Your task to perform on an android device: What's the news this weekend? Image 0: 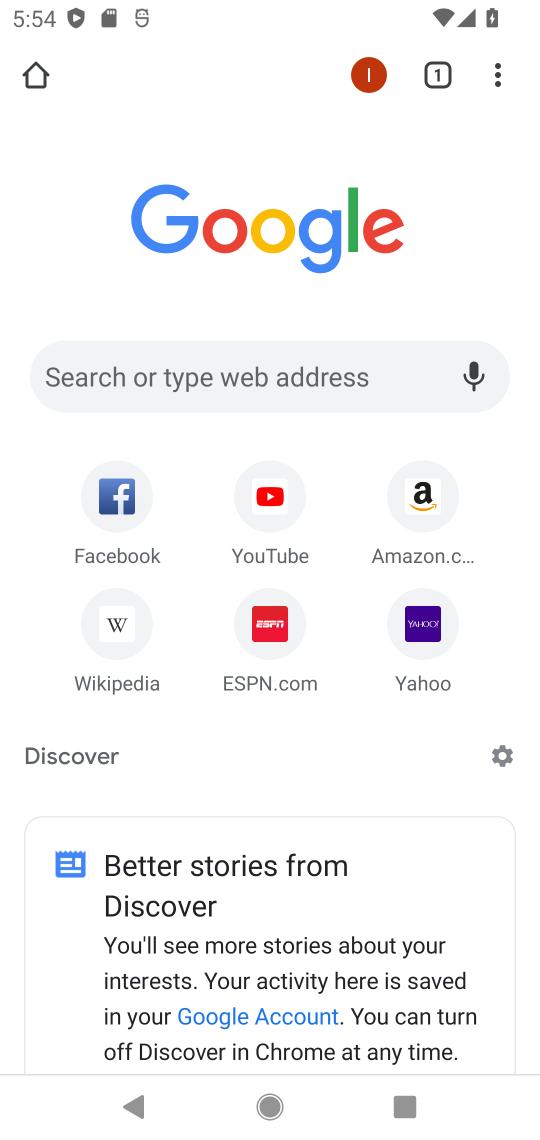
Step 0: click (331, 385)
Your task to perform on an android device: What's the news this weekend? Image 1: 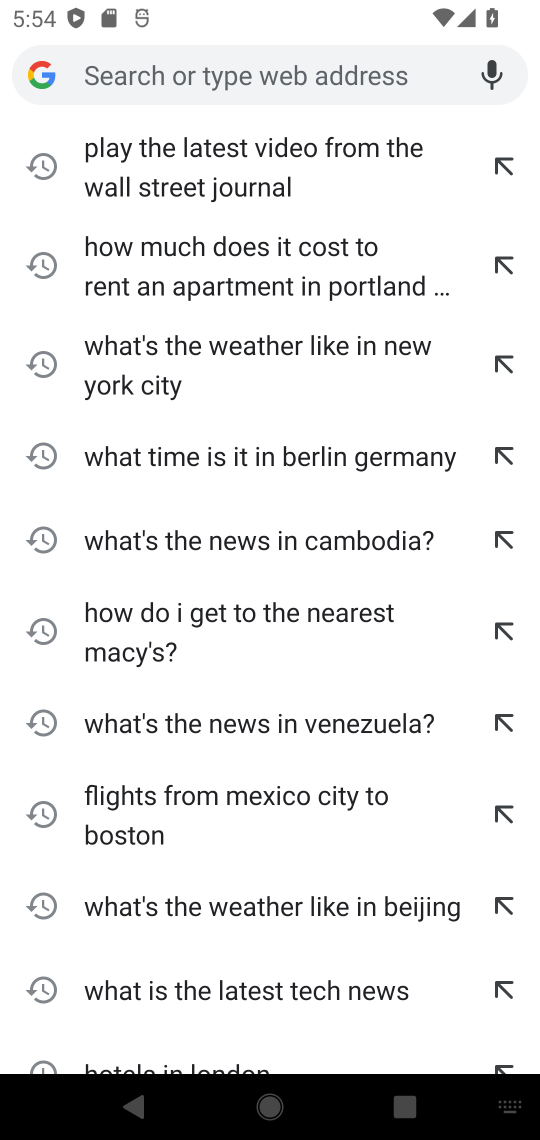
Step 1: type "What's the news this weekend?"
Your task to perform on an android device: What's the news this weekend? Image 2: 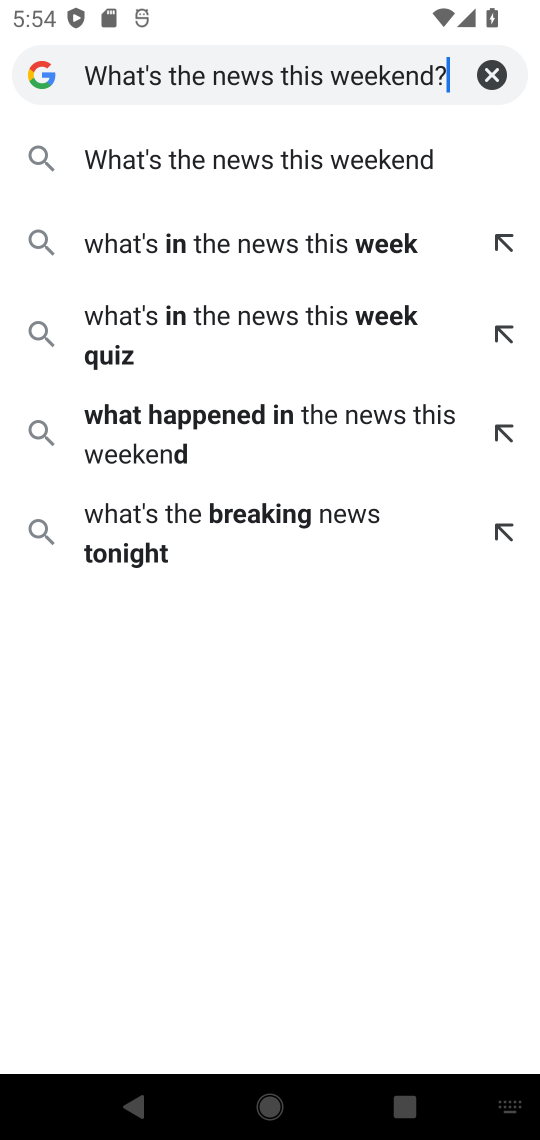
Step 2: type ""
Your task to perform on an android device: What's the news this weekend? Image 3: 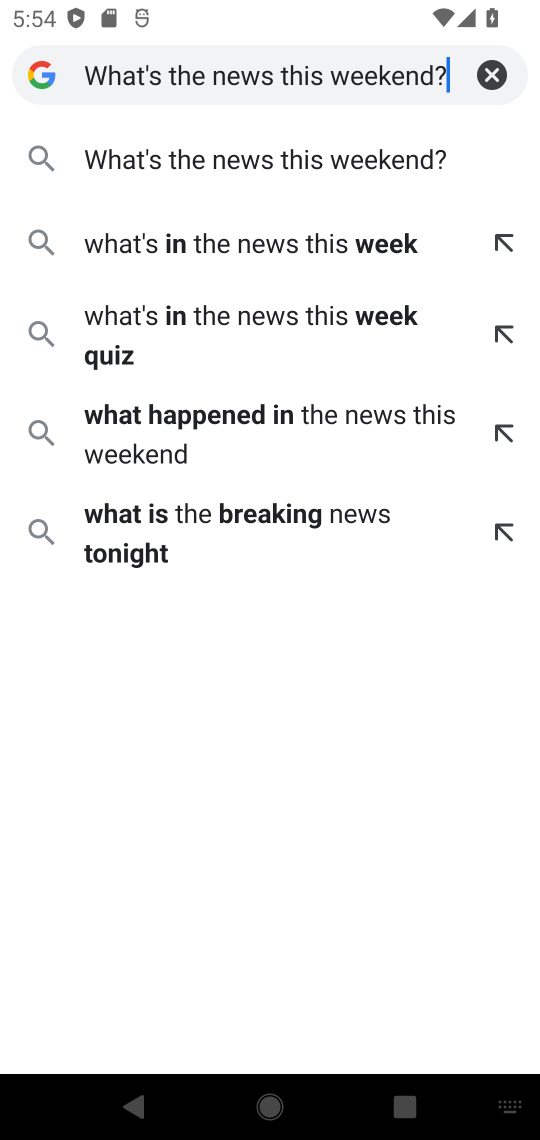
Step 3: click (292, 167)
Your task to perform on an android device: What's the news this weekend? Image 4: 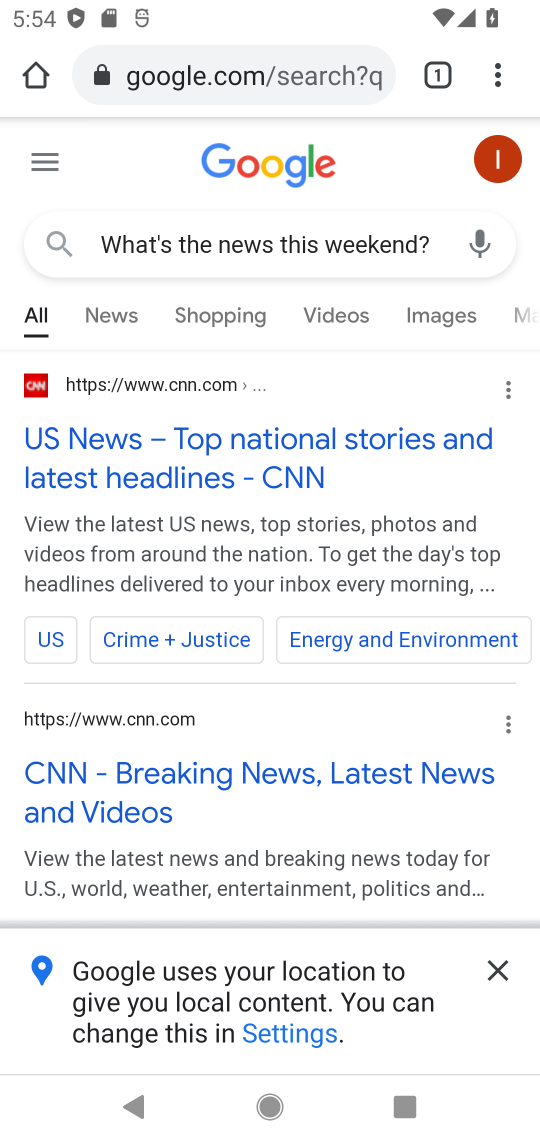
Step 4: click (175, 428)
Your task to perform on an android device: What's the news this weekend? Image 5: 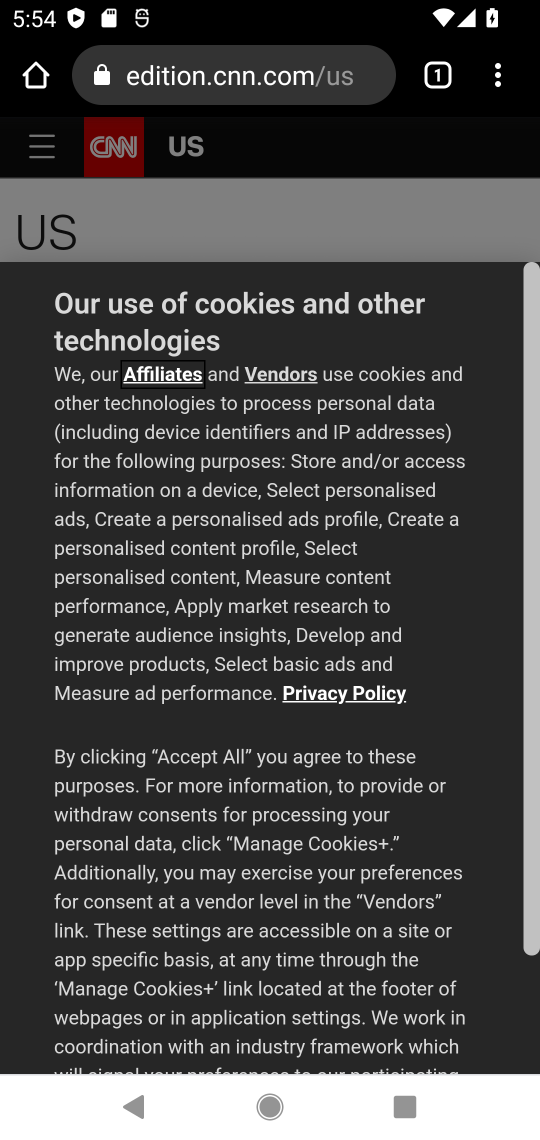
Step 5: drag from (278, 869) to (353, 286)
Your task to perform on an android device: What's the news this weekend? Image 6: 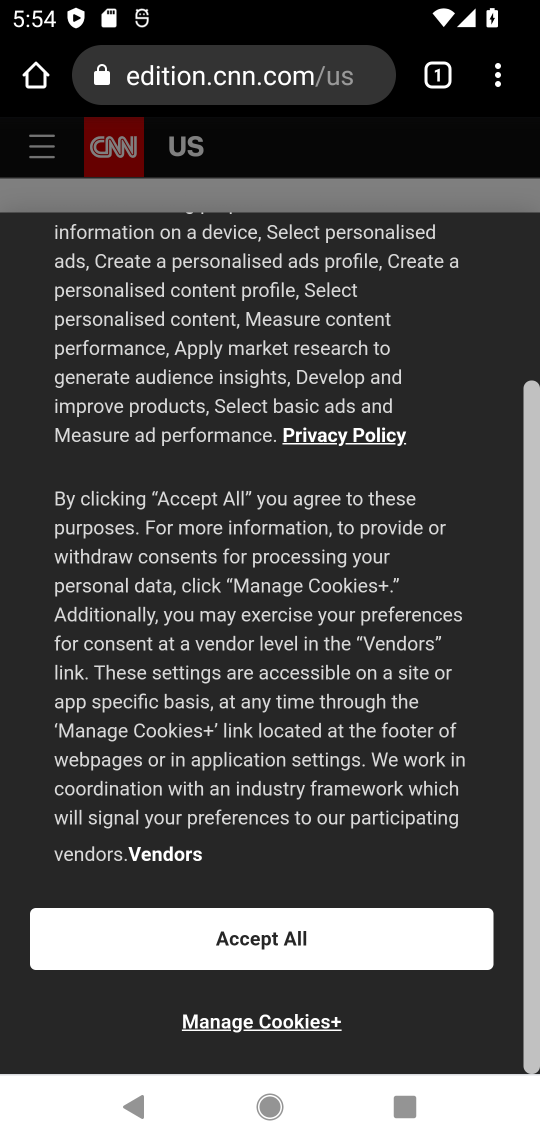
Step 6: drag from (398, 847) to (396, 314)
Your task to perform on an android device: What's the news this weekend? Image 7: 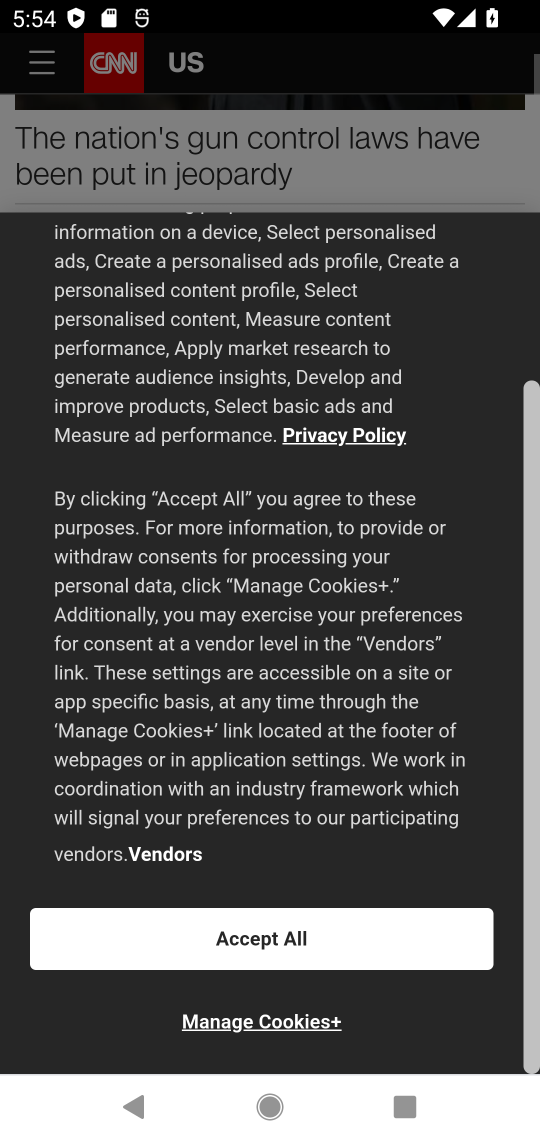
Step 7: click (343, 915)
Your task to perform on an android device: What's the news this weekend? Image 8: 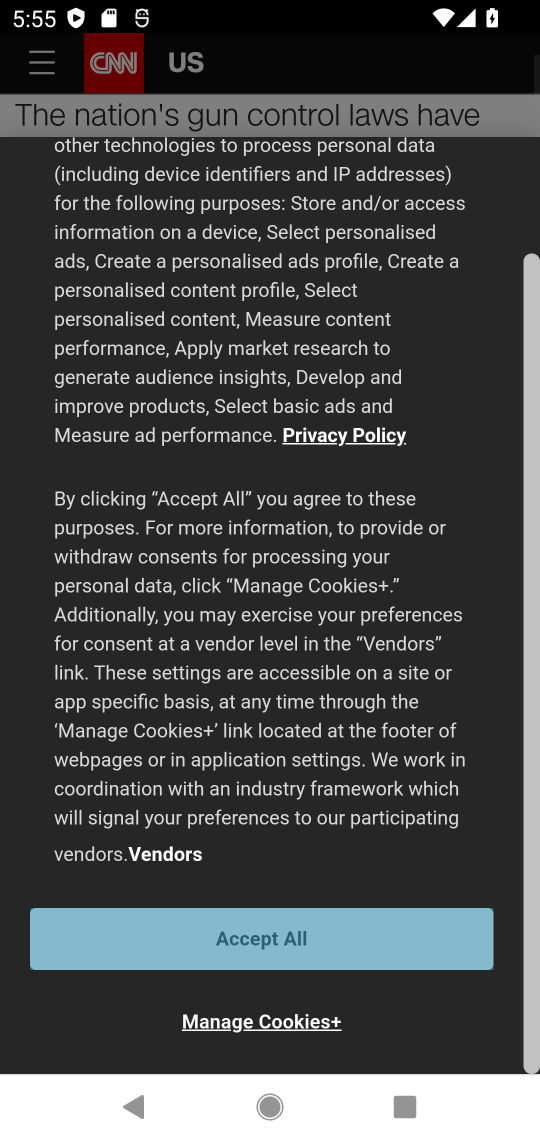
Step 8: drag from (356, 911) to (377, 533)
Your task to perform on an android device: What's the news this weekend? Image 9: 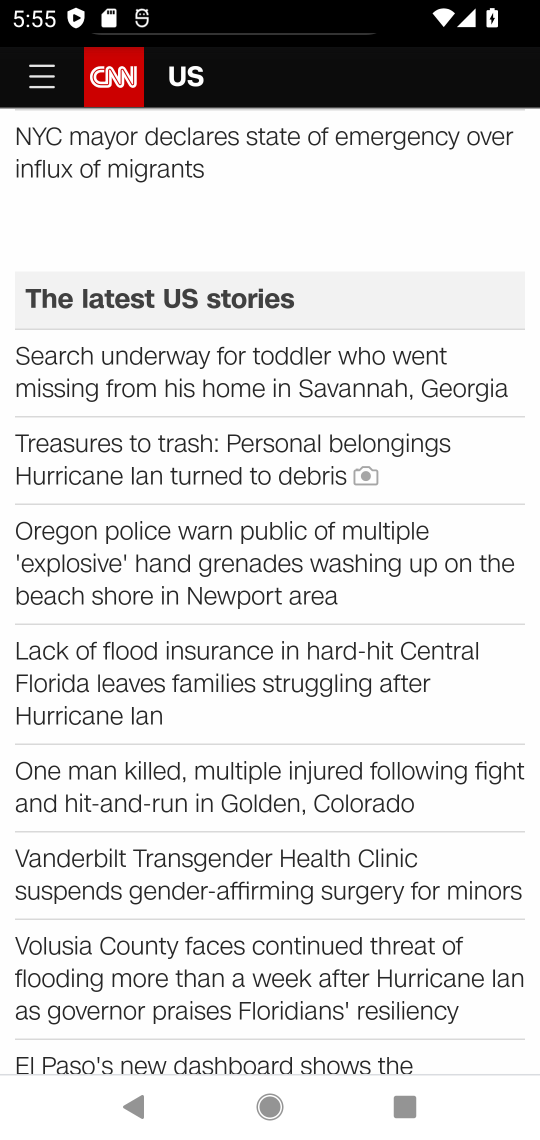
Step 9: drag from (293, 930) to (340, 186)
Your task to perform on an android device: What's the news this weekend? Image 10: 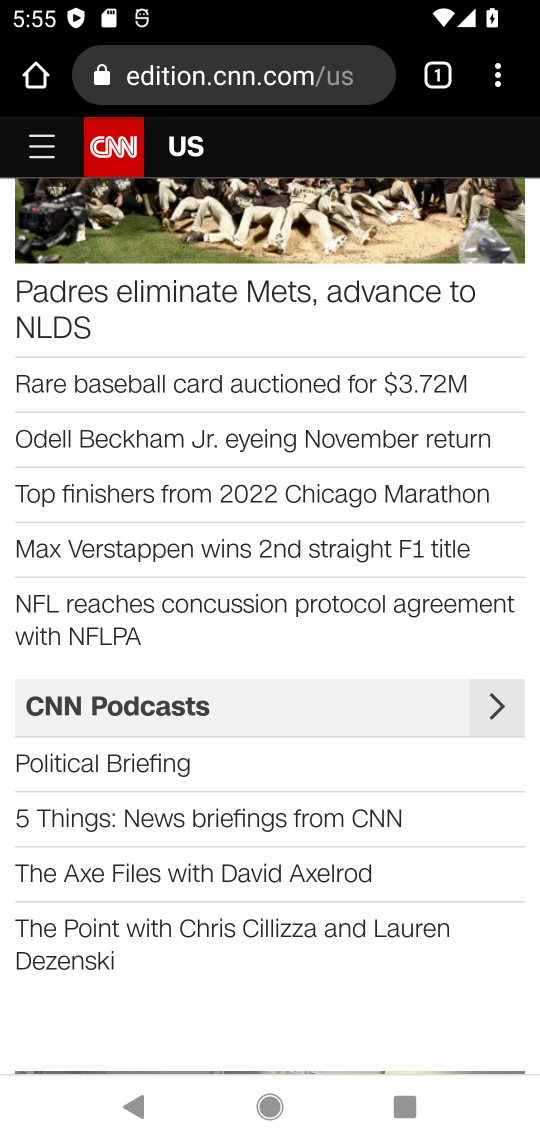
Step 10: drag from (360, 750) to (383, 377)
Your task to perform on an android device: What's the news this weekend? Image 11: 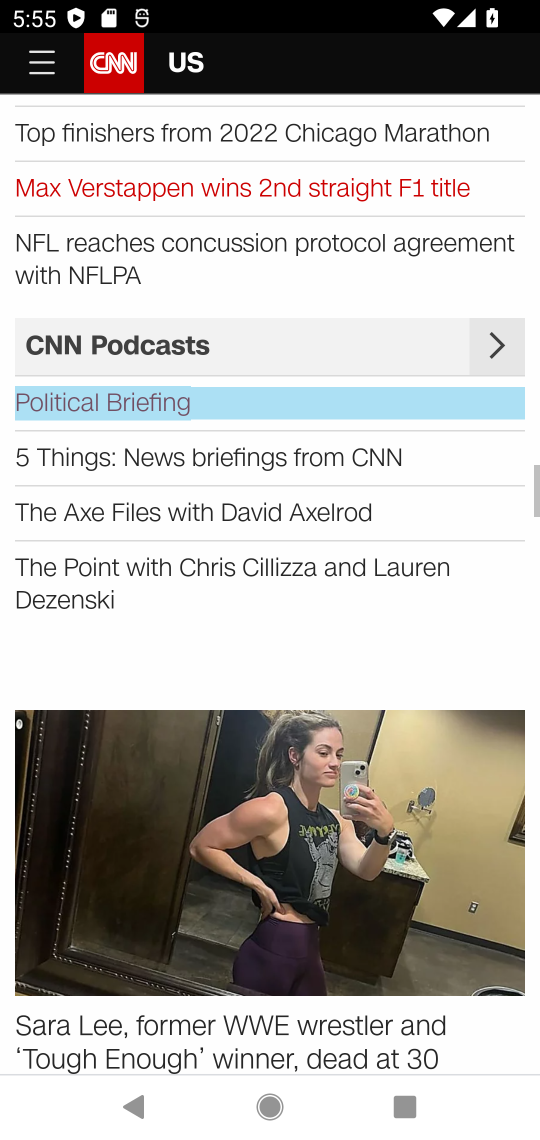
Step 11: drag from (384, 787) to (382, 389)
Your task to perform on an android device: What's the news this weekend? Image 12: 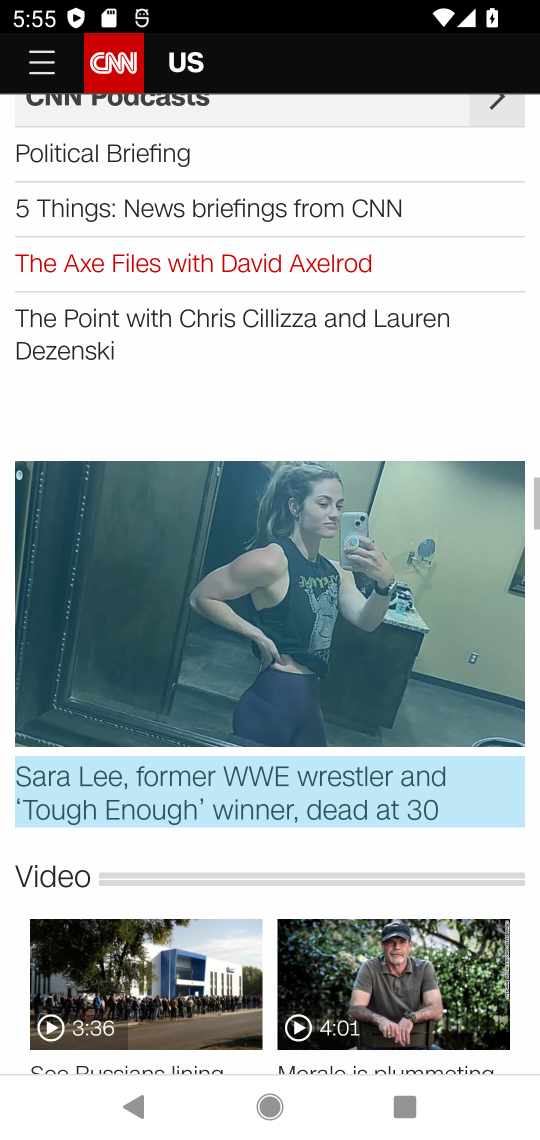
Step 12: drag from (359, 820) to (360, 476)
Your task to perform on an android device: What's the news this weekend? Image 13: 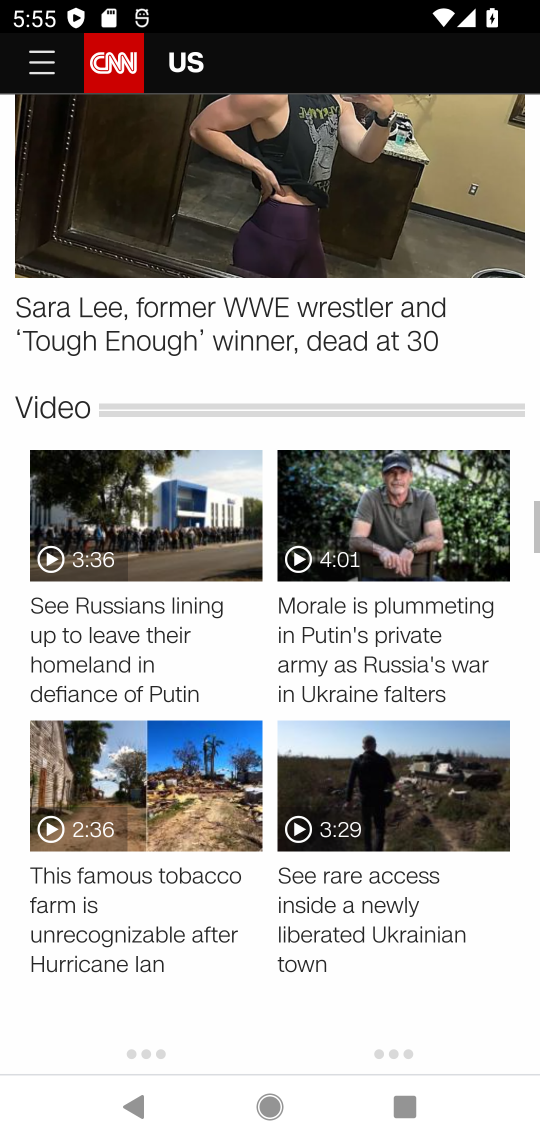
Step 13: drag from (348, 663) to (395, 321)
Your task to perform on an android device: What's the news this weekend? Image 14: 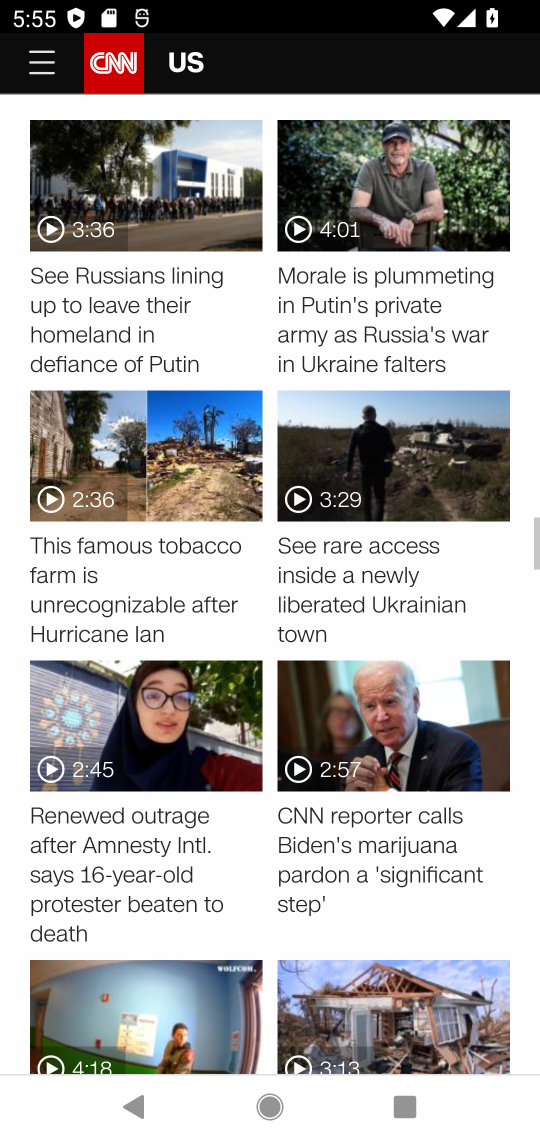
Step 14: drag from (400, 716) to (445, 237)
Your task to perform on an android device: What's the news this weekend? Image 15: 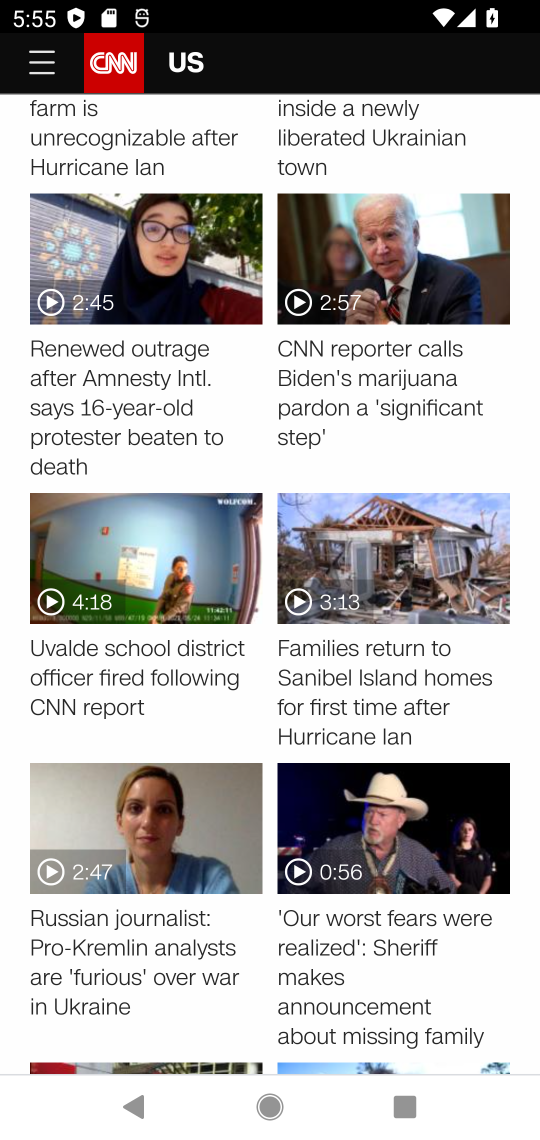
Step 15: drag from (444, 864) to (400, 207)
Your task to perform on an android device: What's the news this weekend? Image 16: 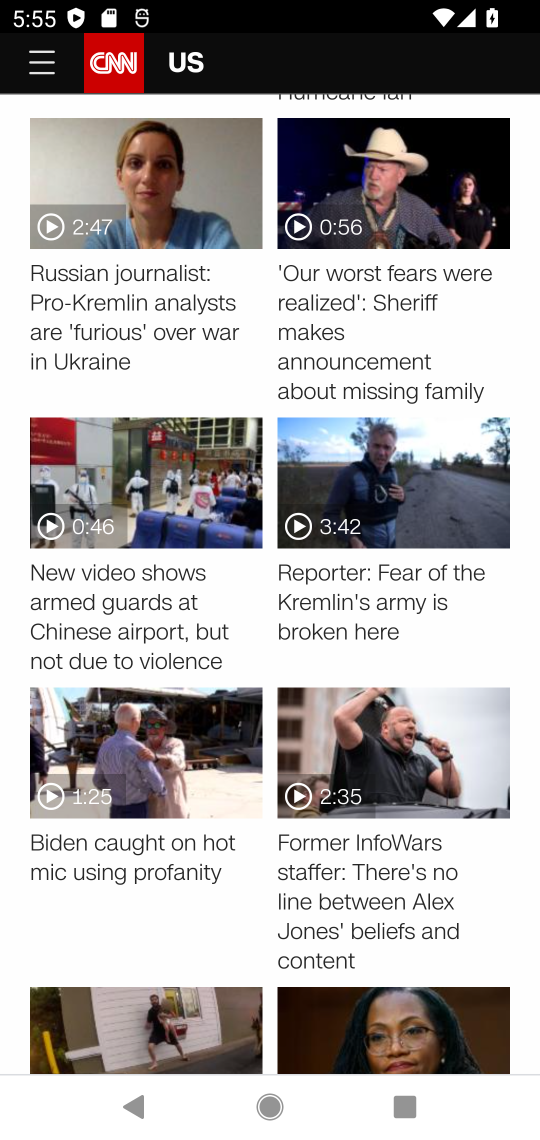
Step 16: press back button
Your task to perform on an android device: What's the news this weekend? Image 17: 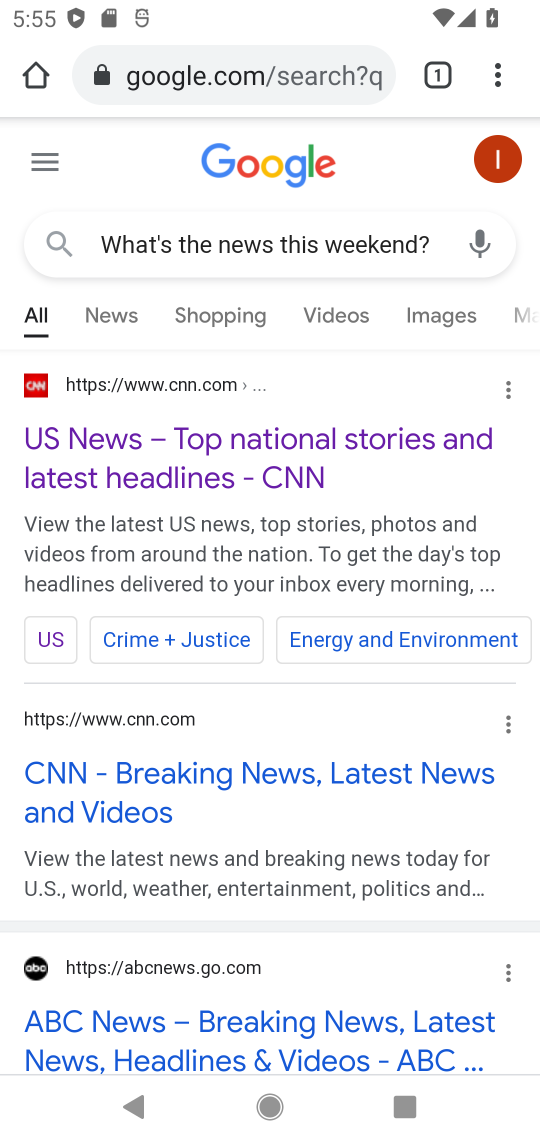
Step 17: click (214, 754)
Your task to perform on an android device: What's the news this weekend? Image 18: 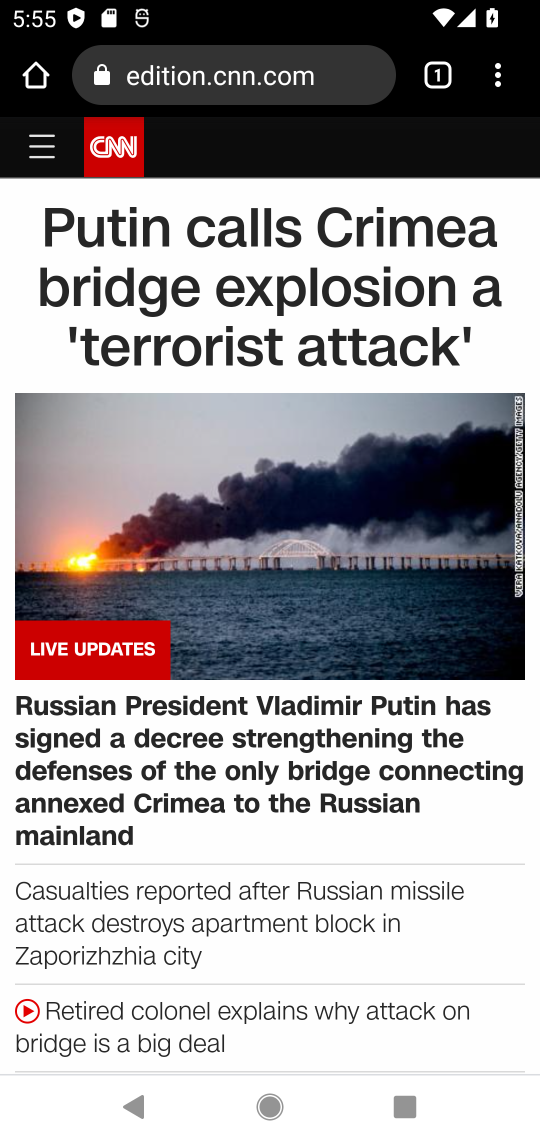
Step 18: drag from (240, 861) to (312, 266)
Your task to perform on an android device: What's the news this weekend? Image 19: 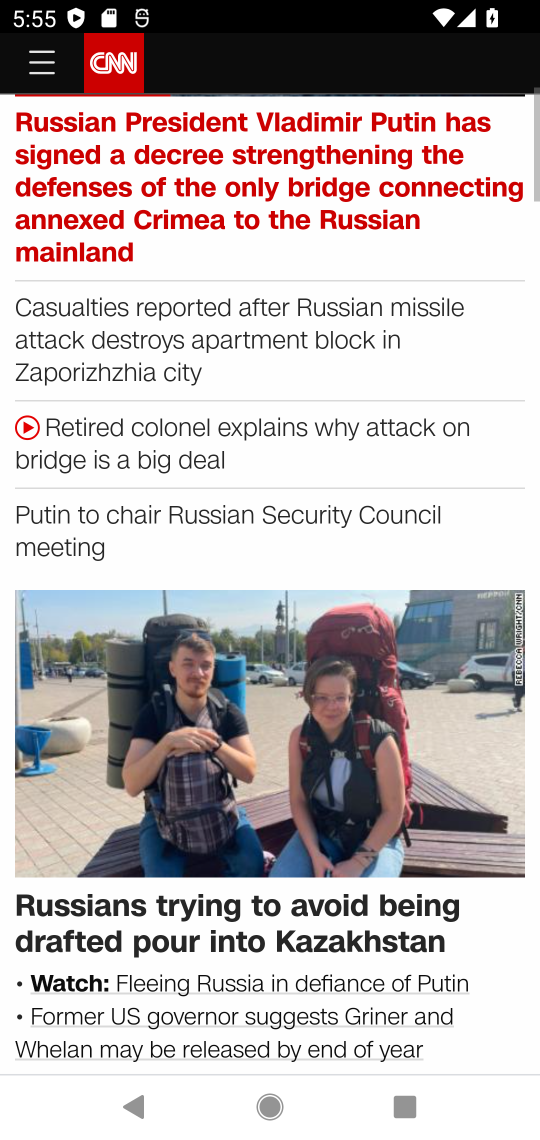
Step 19: drag from (381, 812) to (378, 369)
Your task to perform on an android device: What's the news this weekend? Image 20: 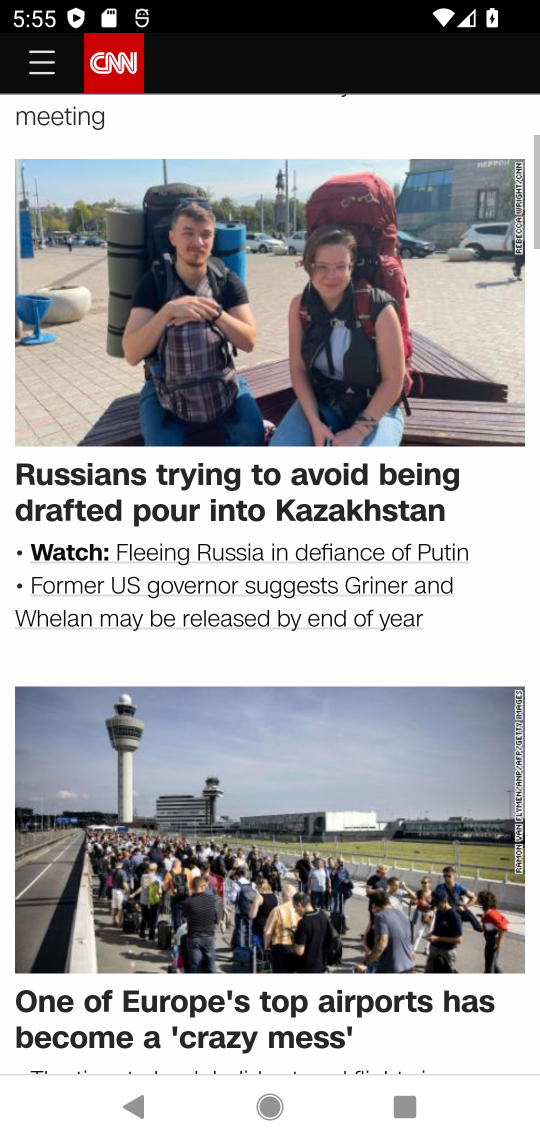
Step 20: drag from (452, 808) to (462, 330)
Your task to perform on an android device: What's the news this weekend? Image 21: 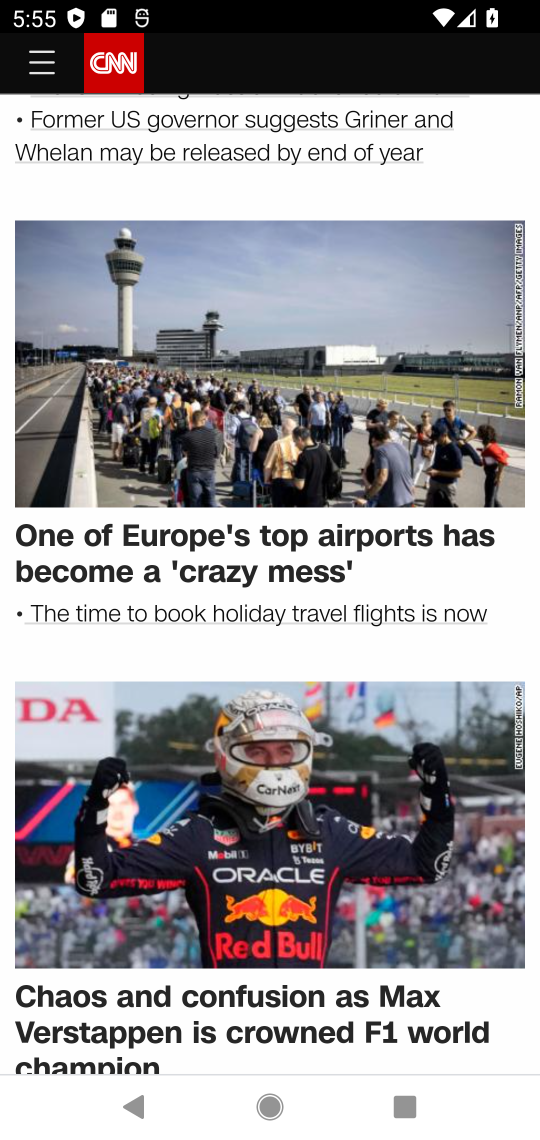
Step 21: drag from (413, 572) to (452, 269)
Your task to perform on an android device: What's the news this weekend? Image 22: 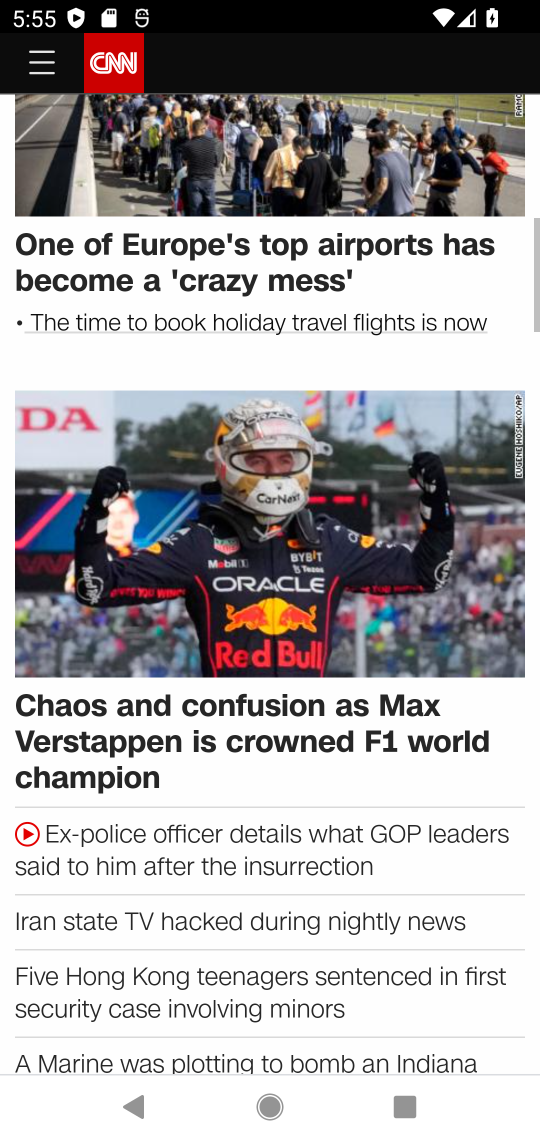
Step 22: drag from (487, 843) to (471, 188)
Your task to perform on an android device: What's the news this weekend? Image 23: 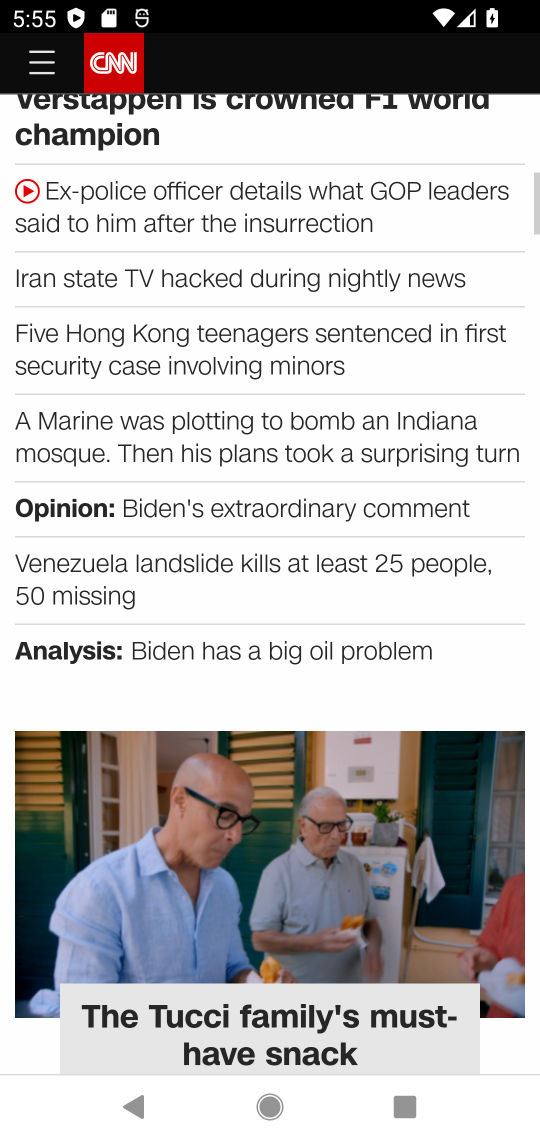
Step 23: drag from (445, 475) to (462, 113)
Your task to perform on an android device: What's the news this weekend? Image 24: 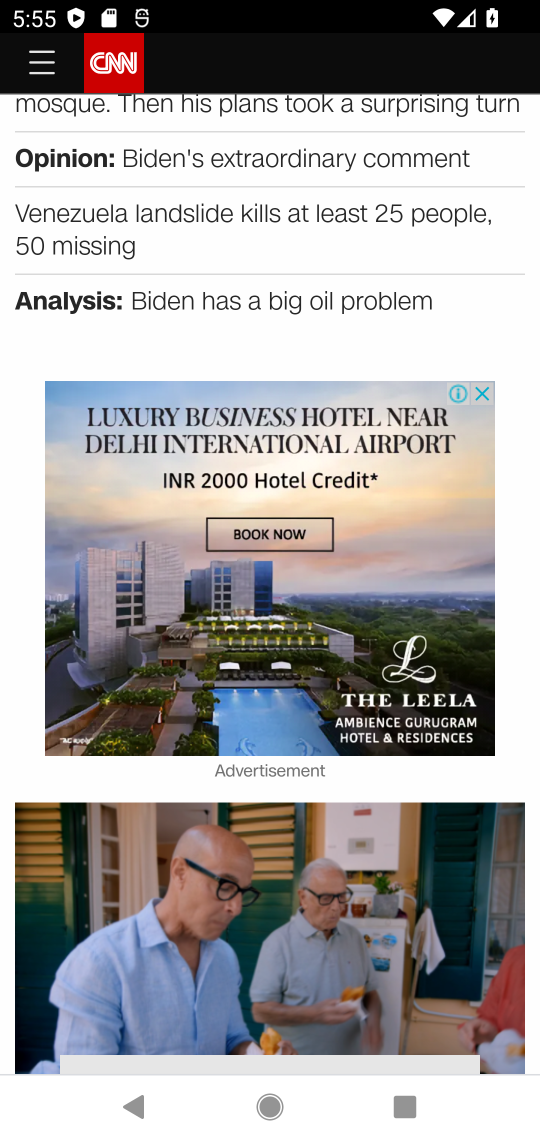
Step 24: drag from (403, 730) to (326, 66)
Your task to perform on an android device: What's the news this weekend? Image 25: 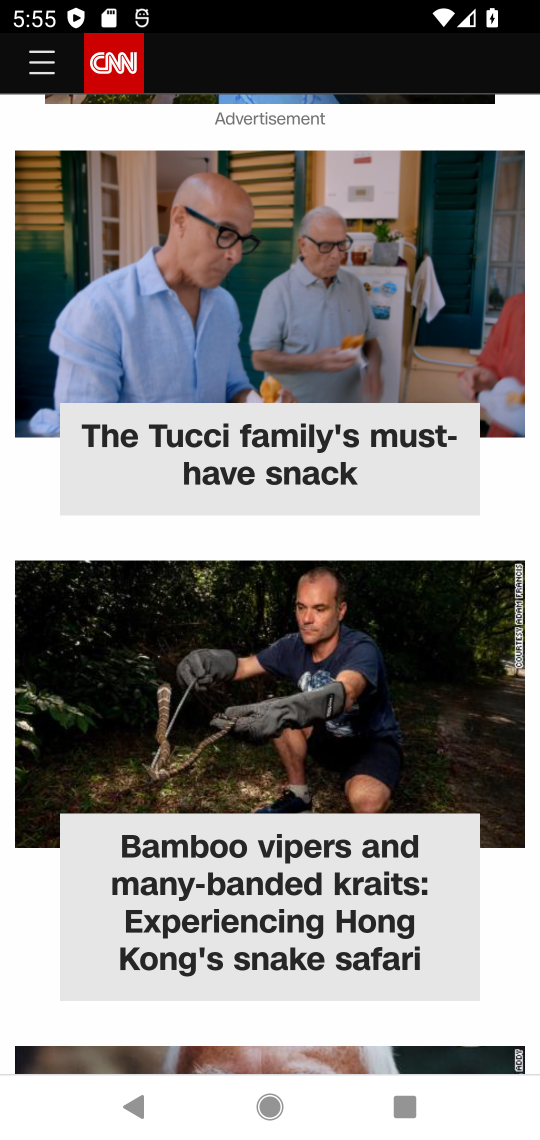
Step 25: drag from (360, 775) to (237, 91)
Your task to perform on an android device: What's the news this weekend? Image 26: 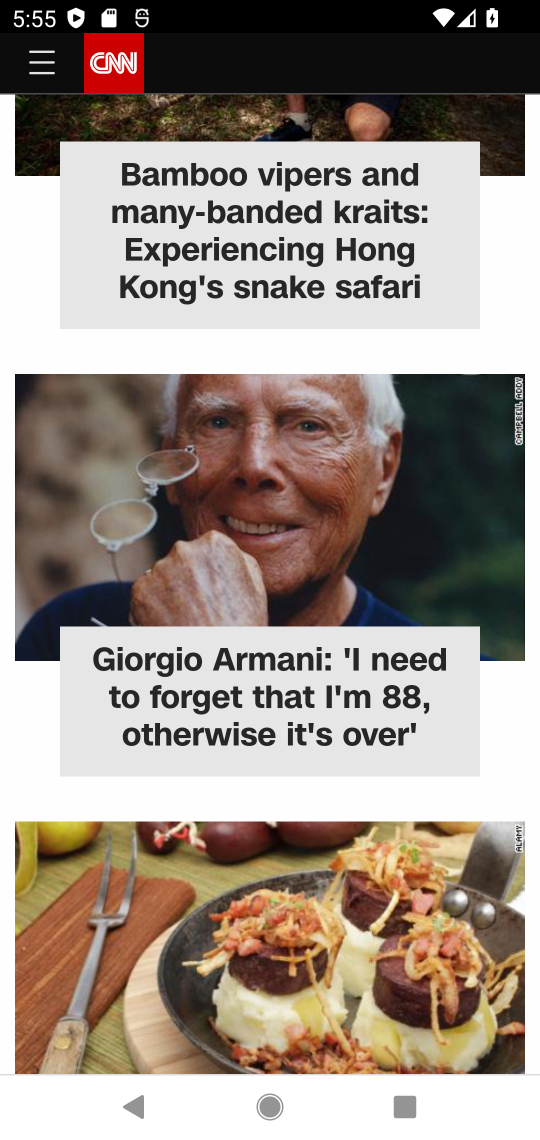
Step 26: drag from (359, 632) to (410, 236)
Your task to perform on an android device: What's the news this weekend? Image 27: 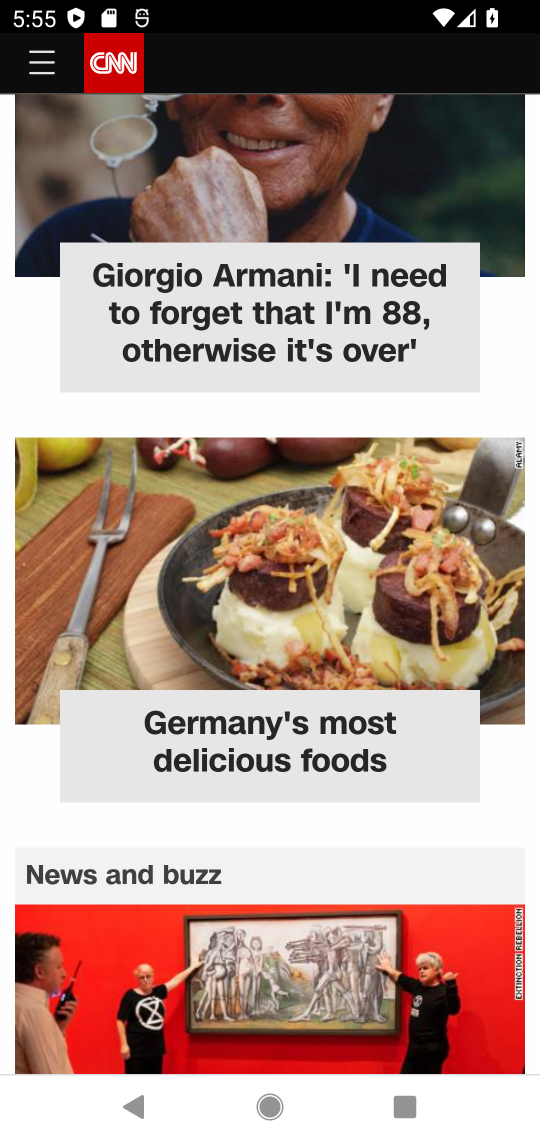
Step 27: drag from (176, 980) to (213, 349)
Your task to perform on an android device: What's the news this weekend? Image 28: 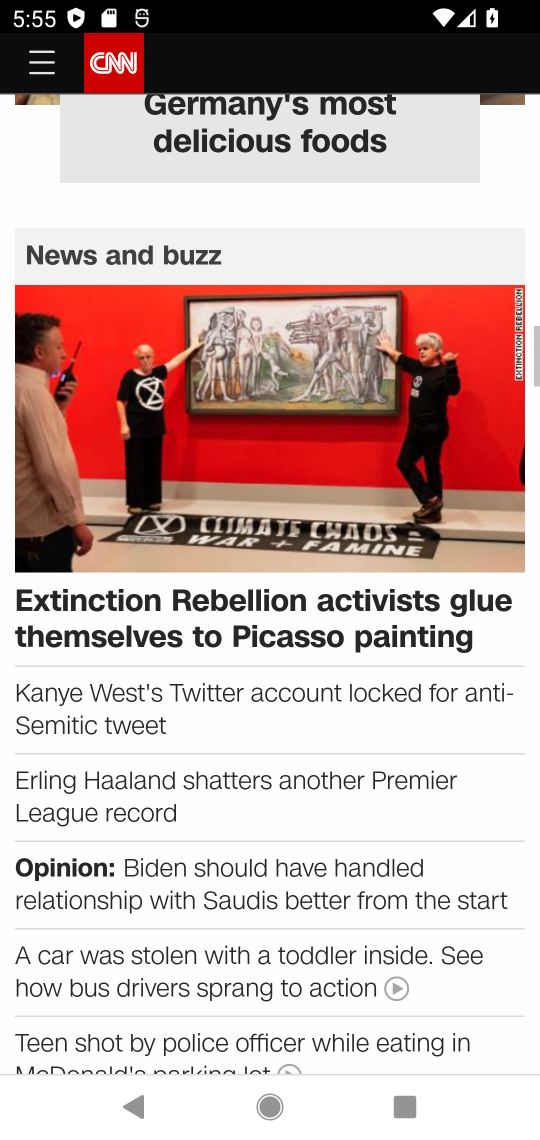
Step 28: drag from (261, 834) to (363, 282)
Your task to perform on an android device: What's the news this weekend? Image 29: 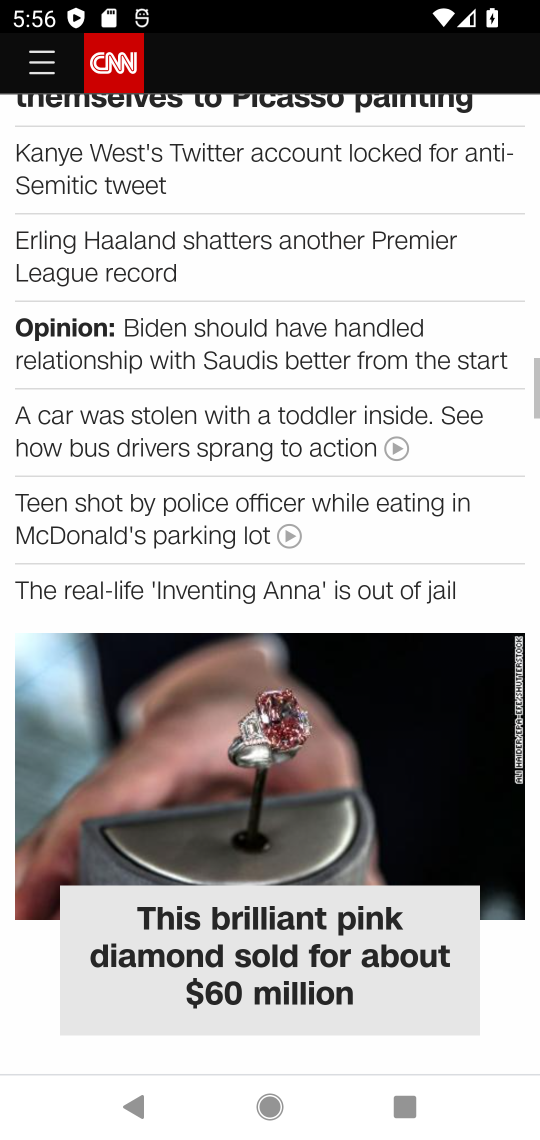
Step 29: drag from (363, 796) to (438, 268)
Your task to perform on an android device: What's the news this weekend? Image 30: 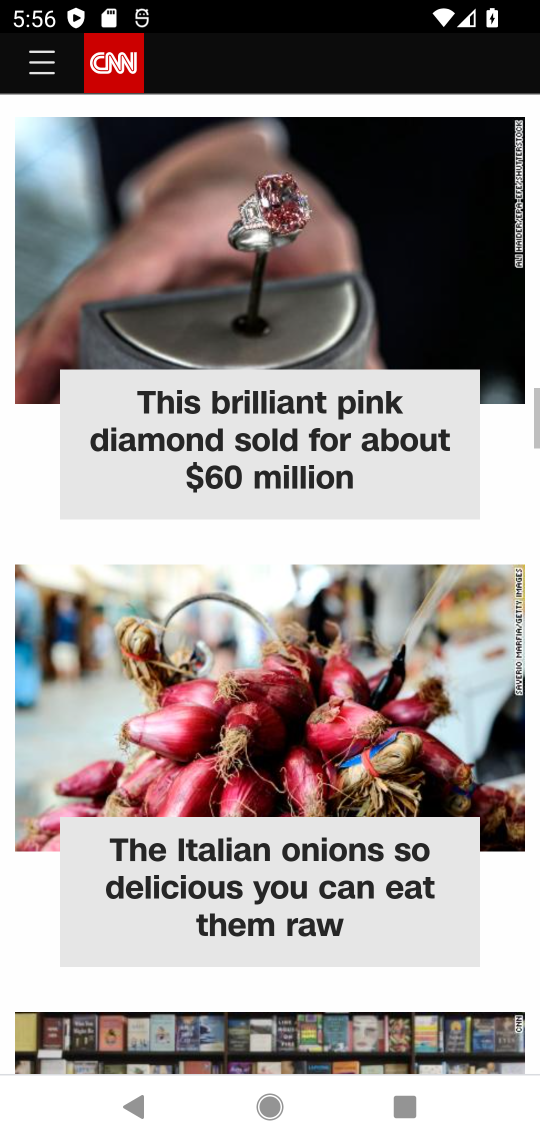
Step 30: drag from (521, 305) to (528, 231)
Your task to perform on an android device: What's the news this weekend? Image 31: 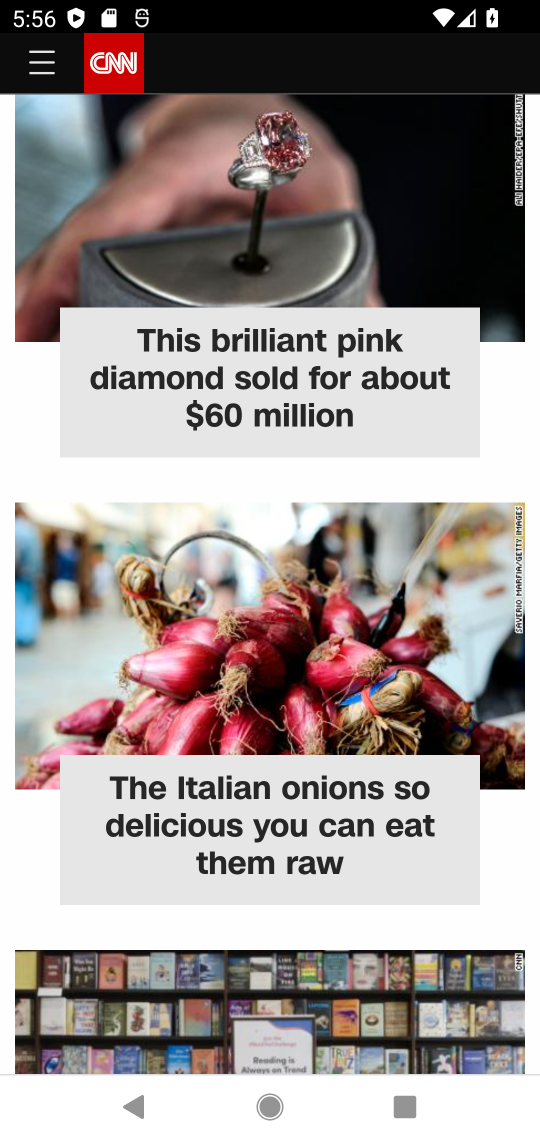
Step 31: press back button
Your task to perform on an android device: What's the news this weekend? Image 32: 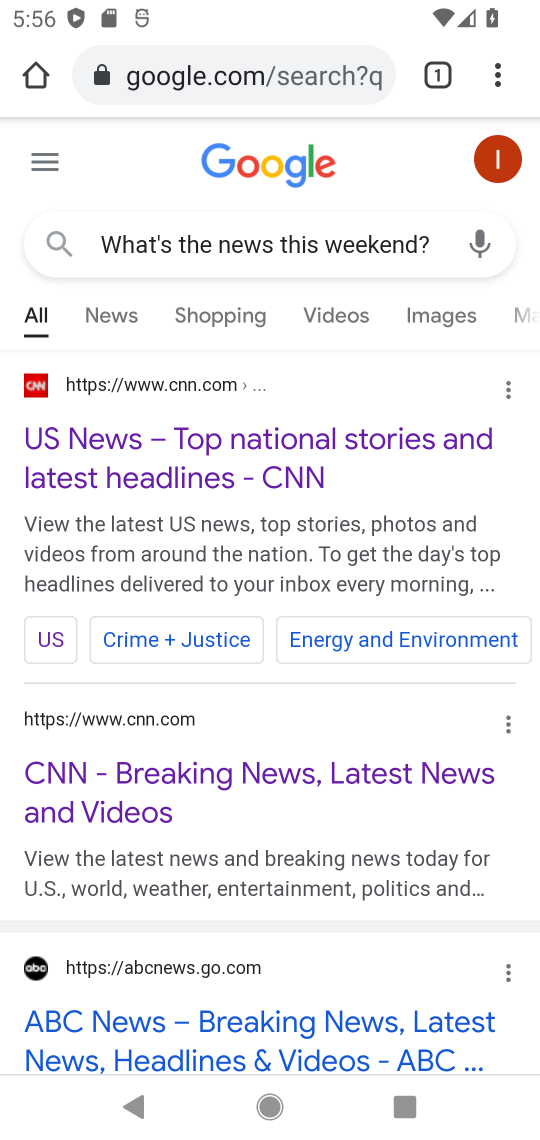
Step 32: drag from (239, 1005) to (328, 435)
Your task to perform on an android device: What's the news this weekend? Image 33: 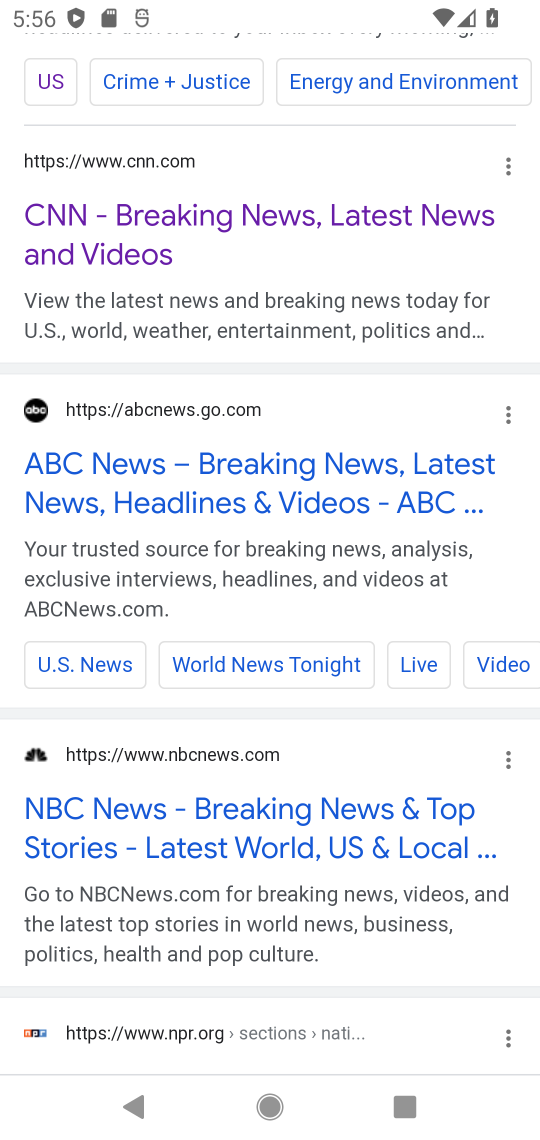
Step 33: click (241, 469)
Your task to perform on an android device: What's the news this weekend? Image 34: 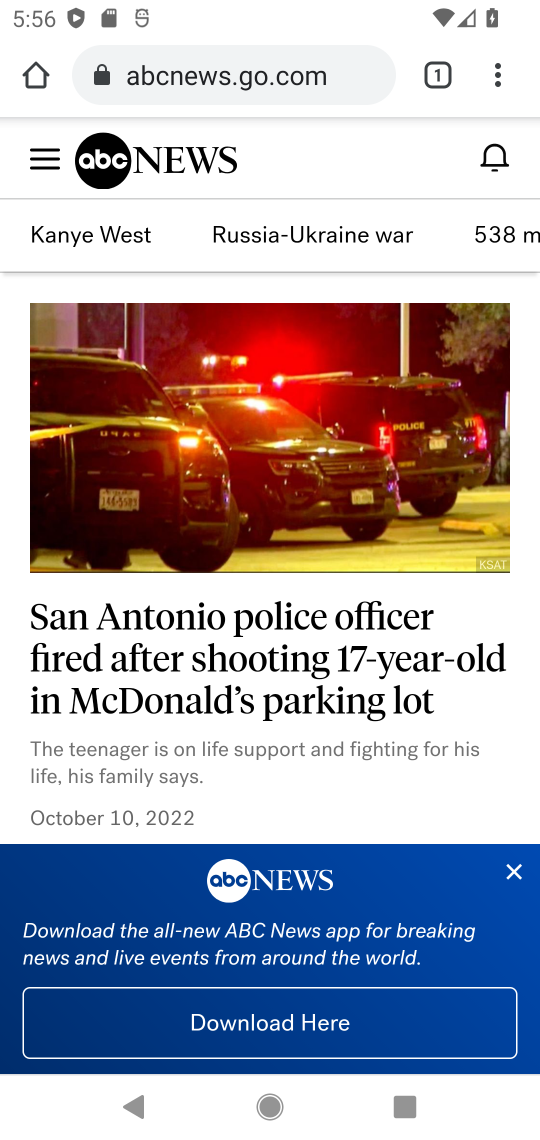
Step 34: drag from (227, 969) to (354, 367)
Your task to perform on an android device: What's the news this weekend? Image 35: 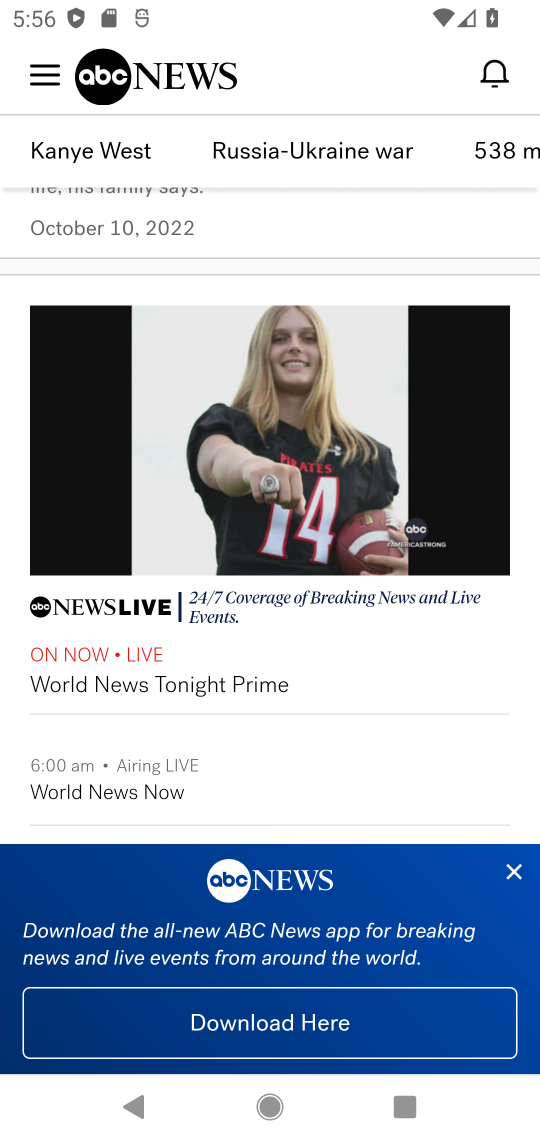
Step 35: click (524, 864)
Your task to perform on an android device: What's the news this weekend? Image 36: 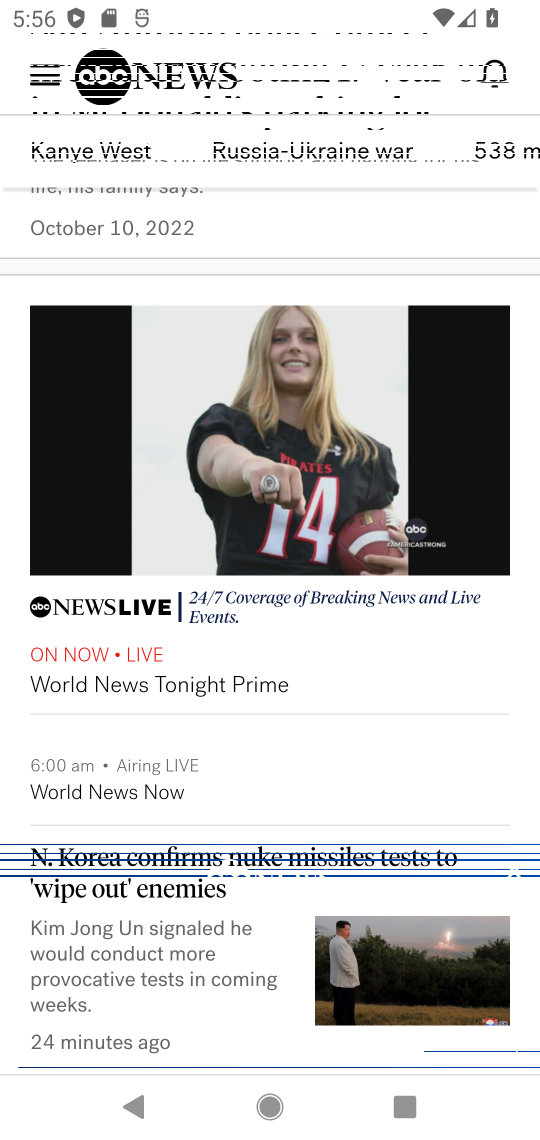
Step 36: drag from (524, 864) to (509, 477)
Your task to perform on an android device: What's the news this weekend? Image 37: 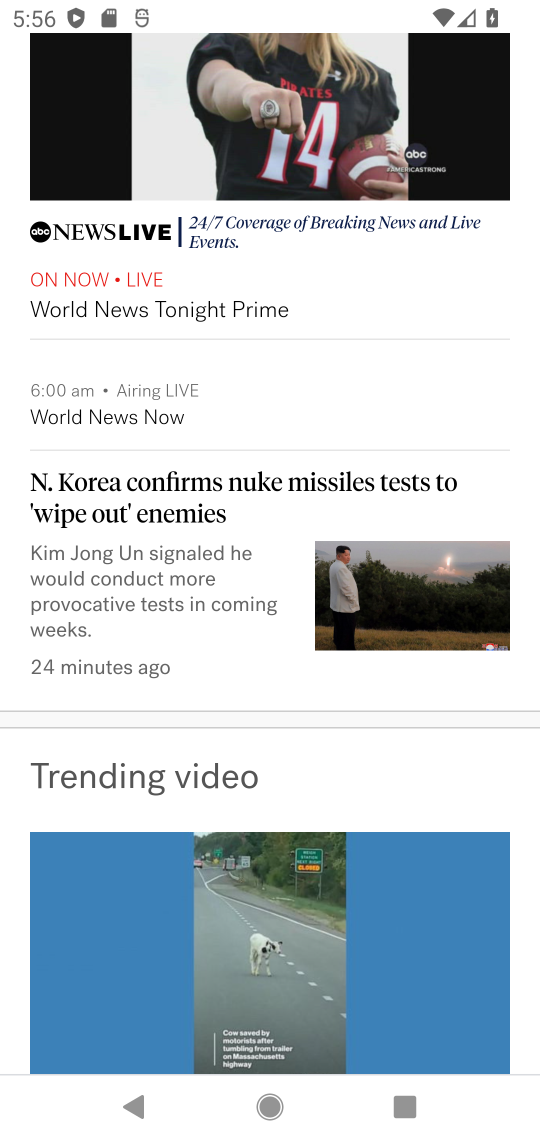
Step 37: drag from (472, 724) to (509, 352)
Your task to perform on an android device: What's the news this weekend? Image 38: 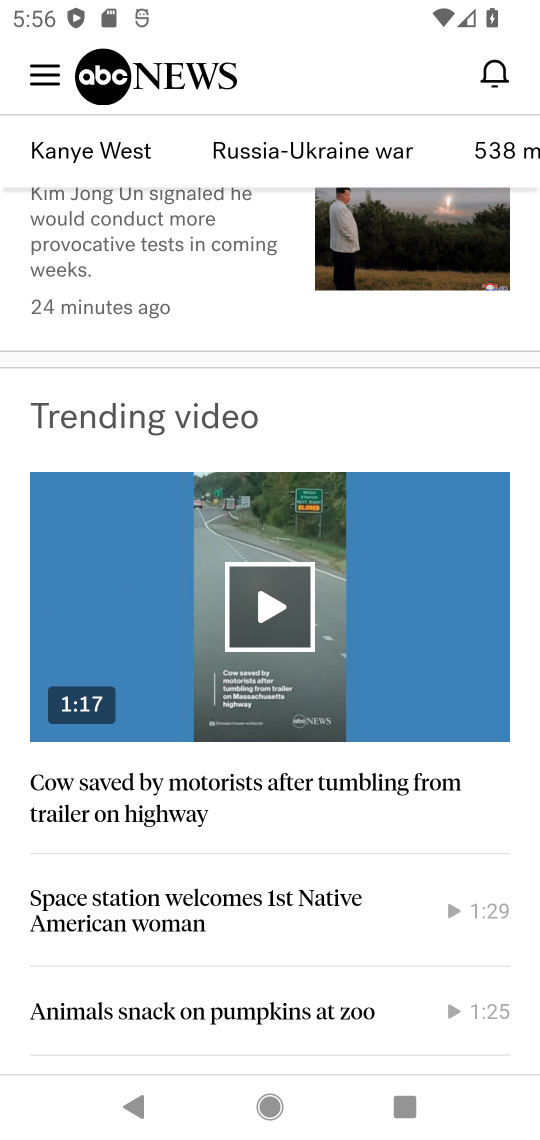
Step 38: drag from (469, 694) to (528, 324)
Your task to perform on an android device: What's the news this weekend? Image 39: 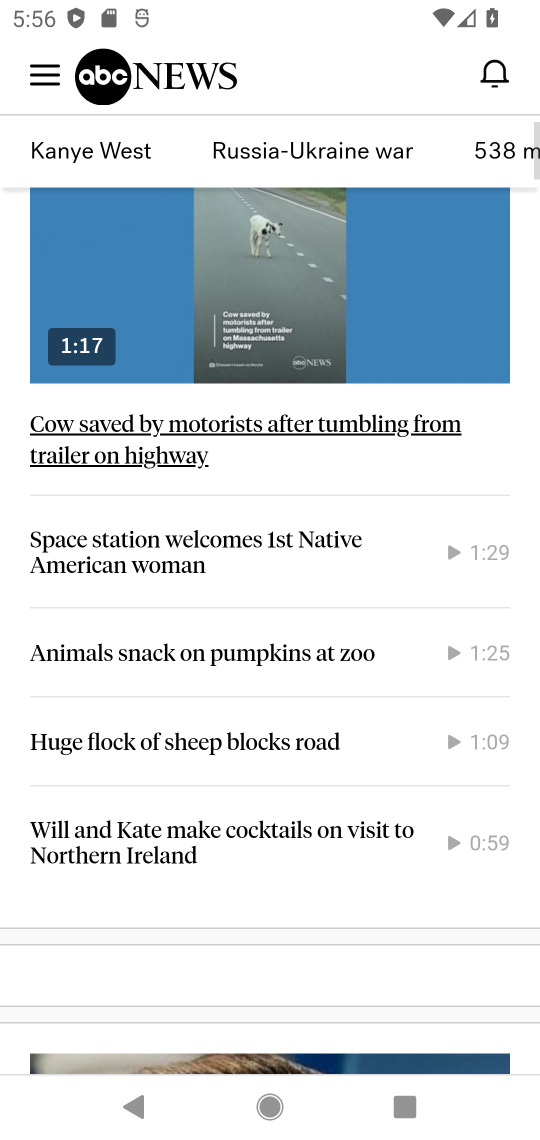
Step 39: drag from (391, 727) to (376, 326)
Your task to perform on an android device: What's the news this weekend? Image 40: 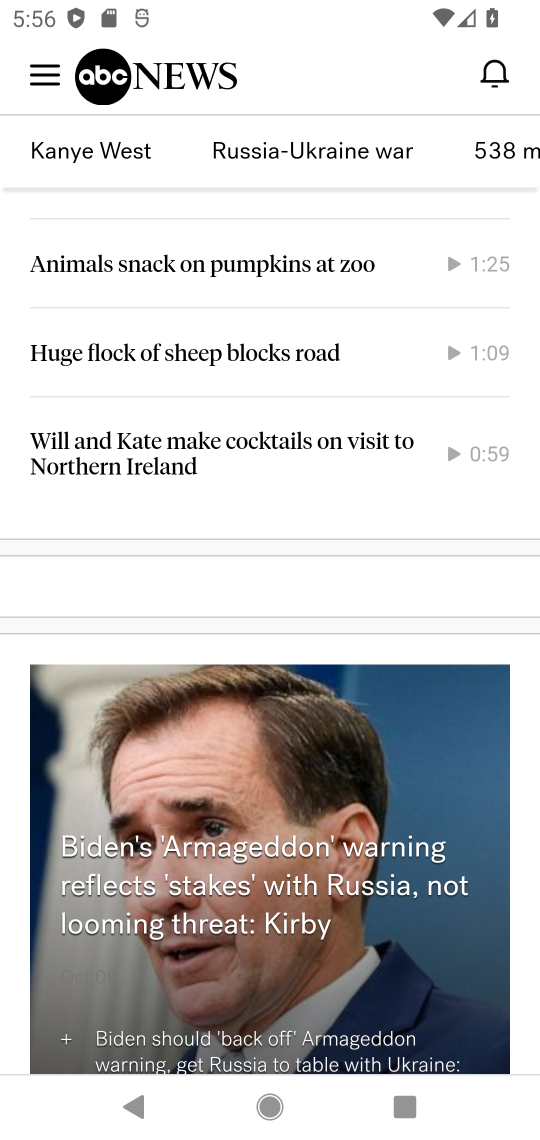
Step 40: drag from (303, 583) to (356, 363)
Your task to perform on an android device: What's the news this weekend? Image 41: 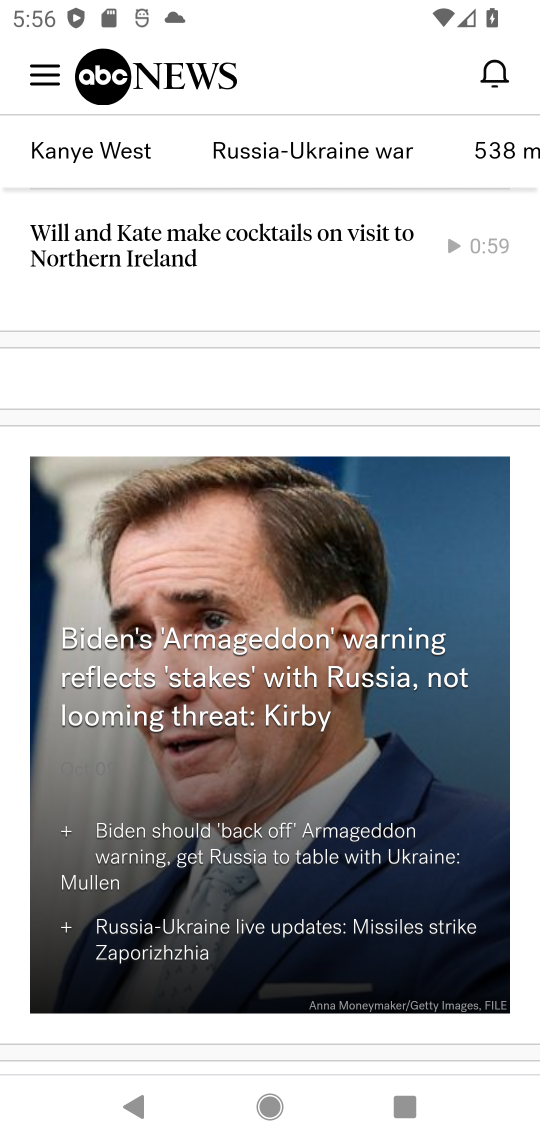
Step 41: drag from (399, 678) to (490, 227)
Your task to perform on an android device: What's the news this weekend? Image 42: 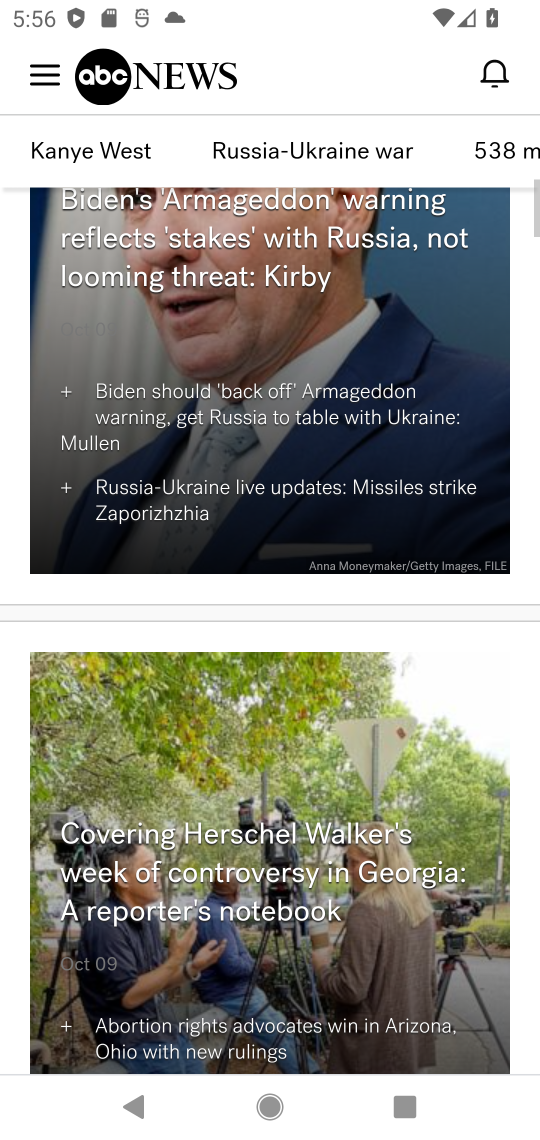
Step 42: click (500, 273)
Your task to perform on an android device: What's the news this weekend? Image 43: 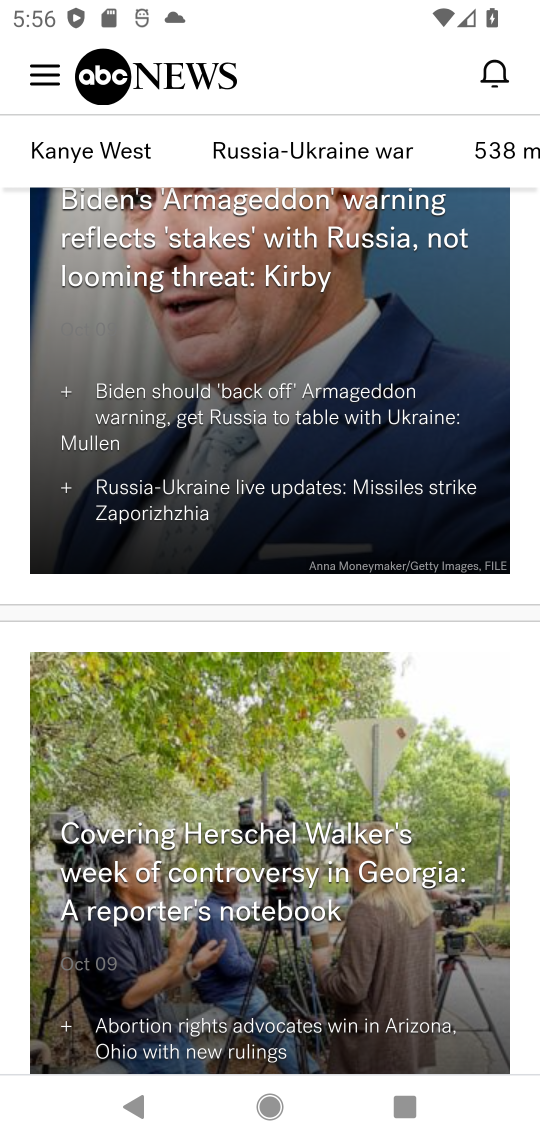
Step 43: drag from (389, 814) to (482, 249)
Your task to perform on an android device: What's the news this weekend? Image 44: 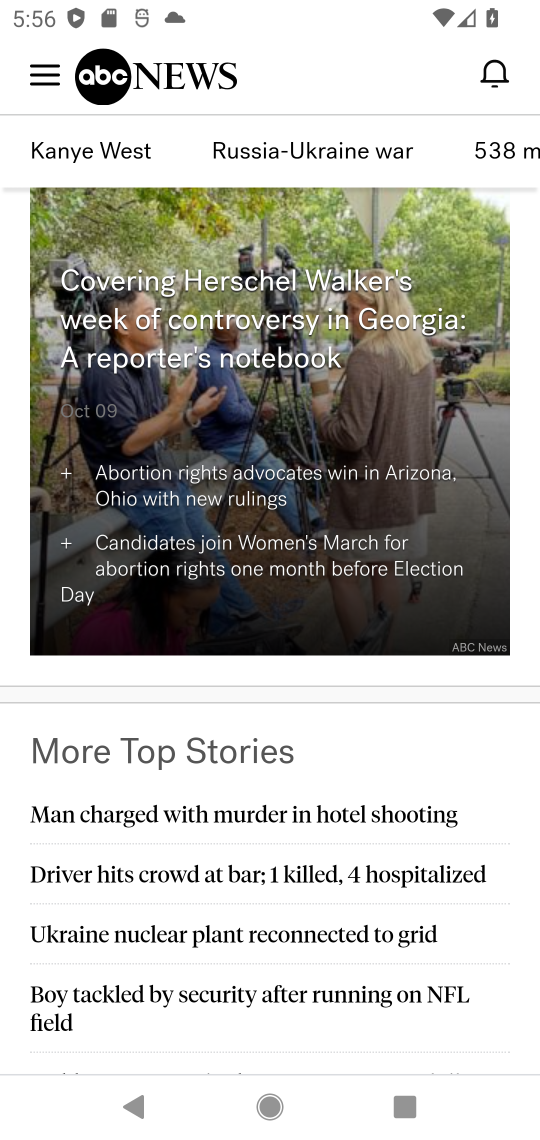
Step 44: drag from (381, 720) to (444, 256)
Your task to perform on an android device: What's the news this weekend? Image 45: 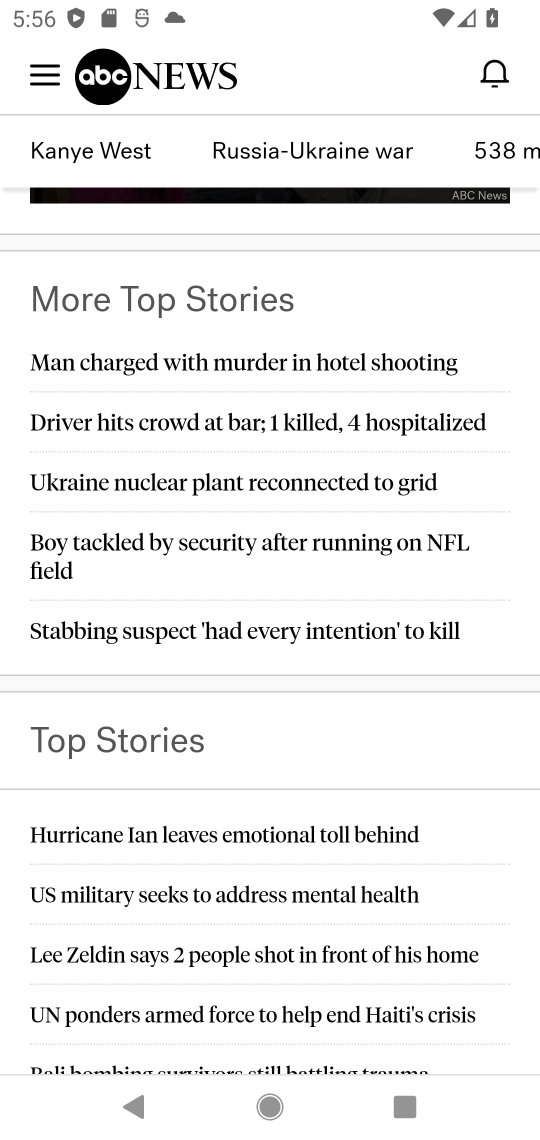
Step 45: drag from (321, 742) to (398, 211)
Your task to perform on an android device: What's the news this weekend? Image 46: 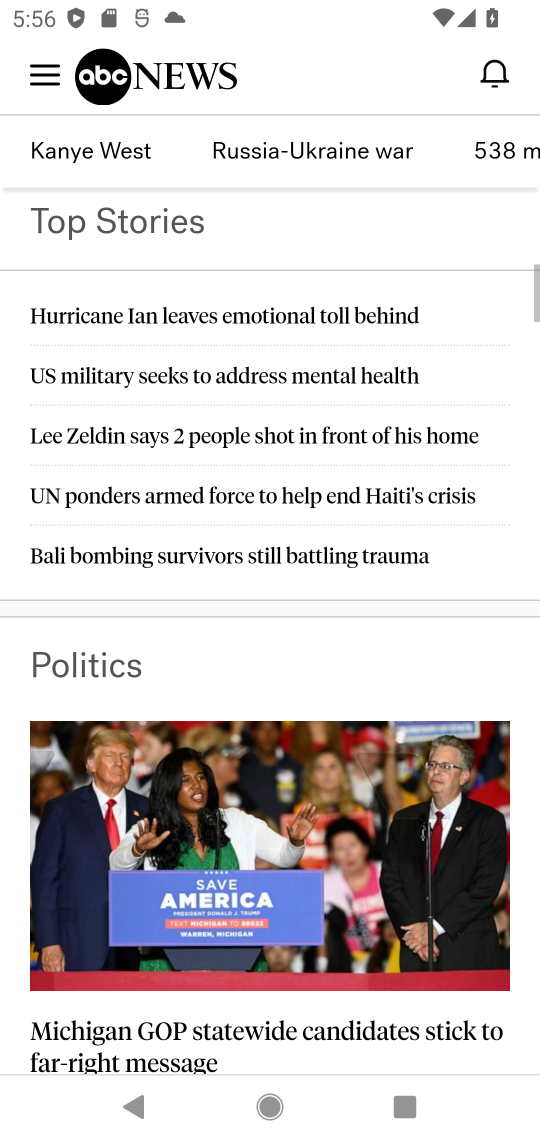
Step 46: drag from (354, 646) to (429, 129)
Your task to perform on an android device: What's the news this weekend? Image 47: 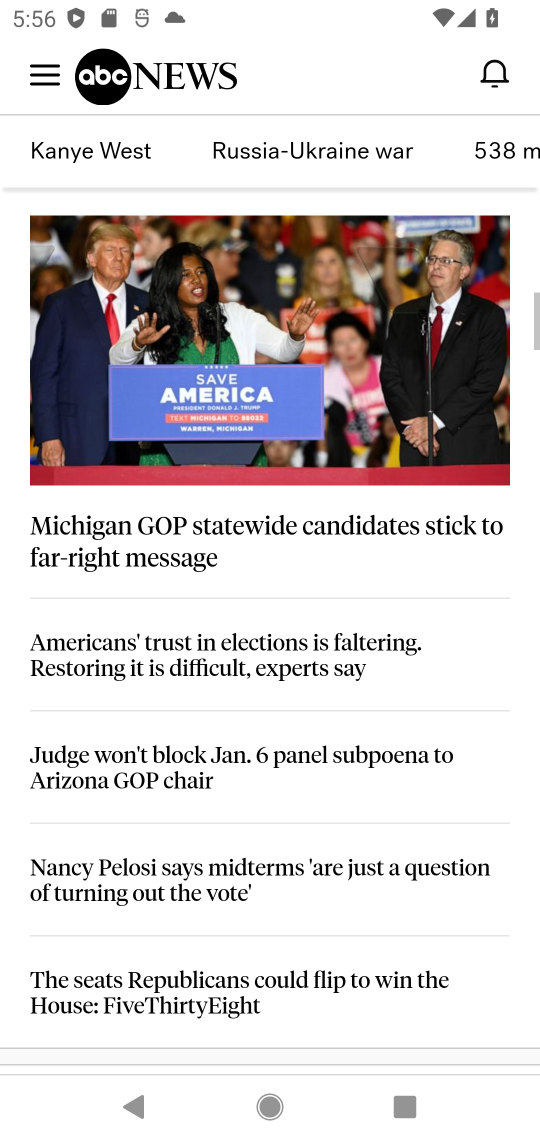
Step 47: drag from (379, 620) to (440, 100)
Your task to perform on an android device: What's the news this weekend? Image 48: 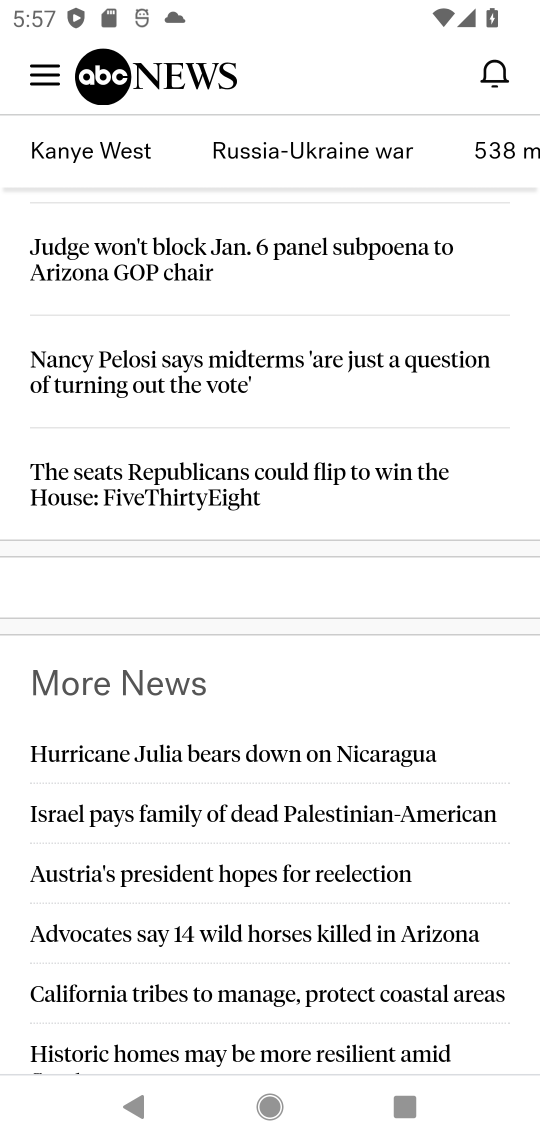
Step 48: click (403, 132)
Your task to perform on an android device: What's the news this weekend? Image 49: 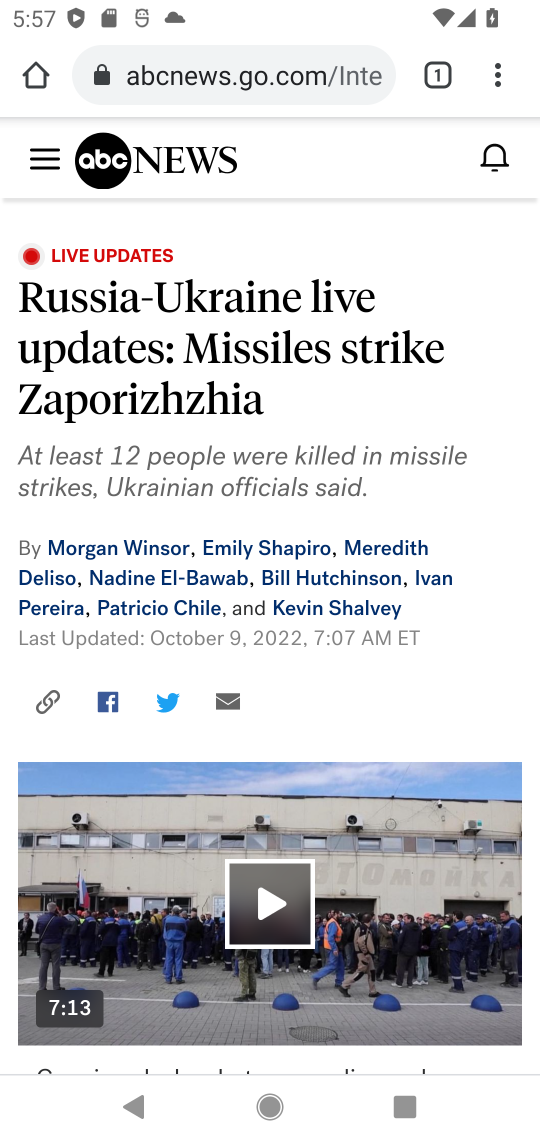
Step 49: task complete